Your task to perform on an android device: open app "PUBG MOBILE" (install if not already installed) Image 0: 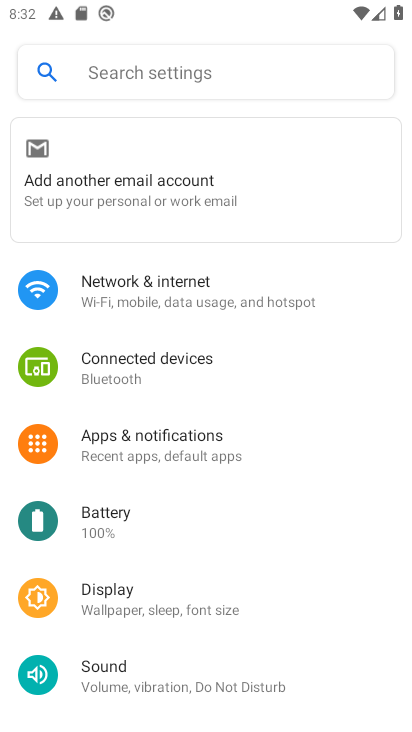
Step 0: press home button
Your task to perform on an android device: open app "PUBG MOBILE" (install if not already installed) Image 1: 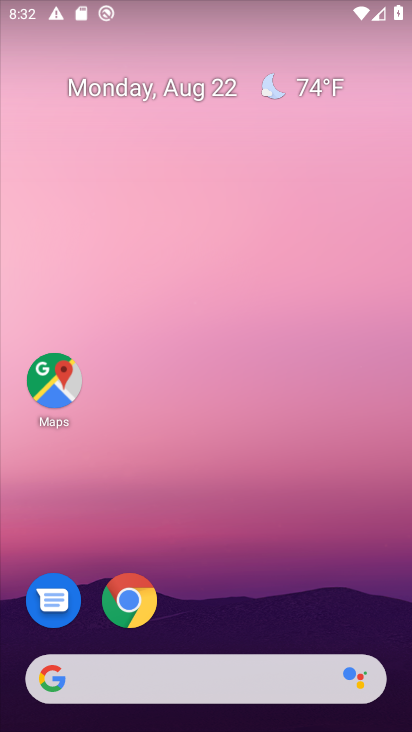
Step 1: drag from (202, 614) to (132, 164)
Your task to perform on an android device: open app "PUBG MOBILE" (install if not already installed) Image 2: 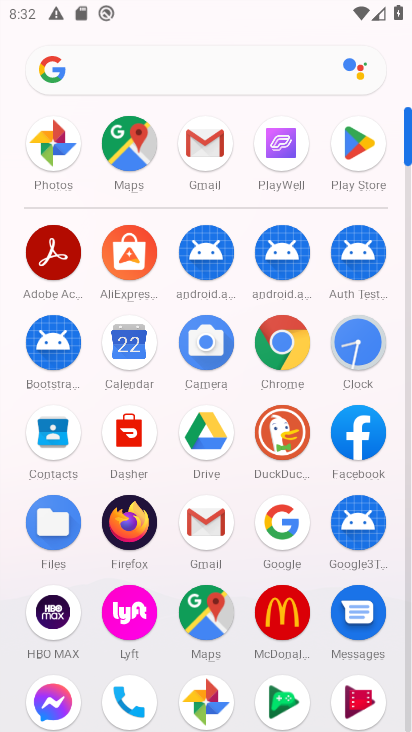
Step 2: click (343, 158)
Your task to perform on an android device: open app "PUBG MOBILE" (install if not already installed) Image 3: 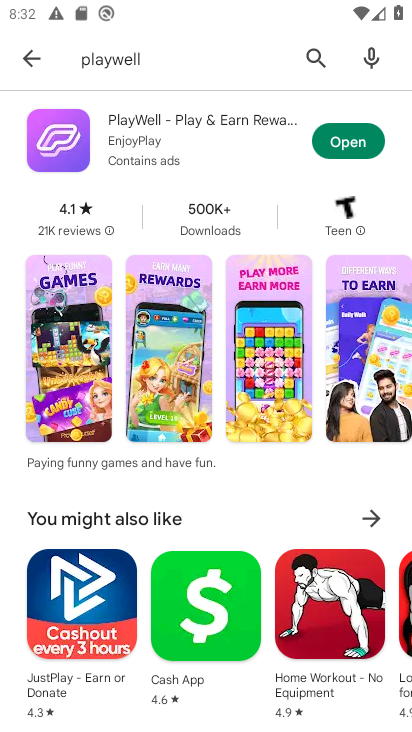
Step 3: click (306, 56)
Your task to perform on an android device: open app "PUBG MOBILE" (install if not already installed) Image 4: 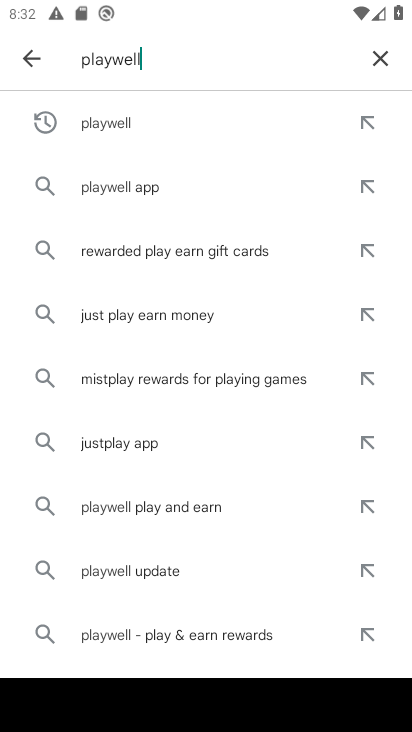
Step 4: click (367, 60)
Your task to perform on an android device: open app "PUBG MOBILE" (install if not already installed) Image 5: 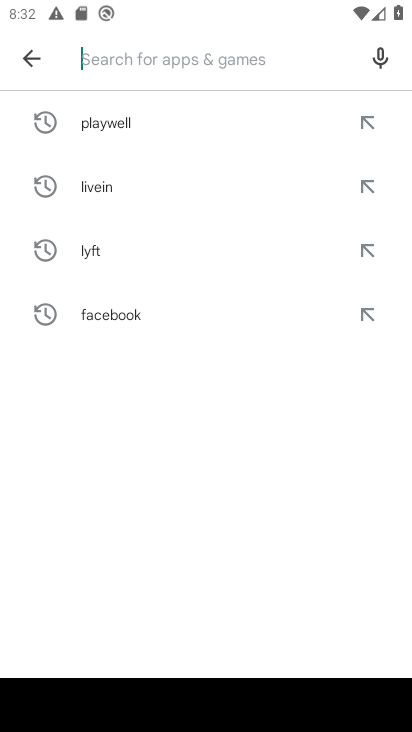
Step 5: task complete